Your task to perform on an android device: turn vacation reply on in the gmail app Image 0: 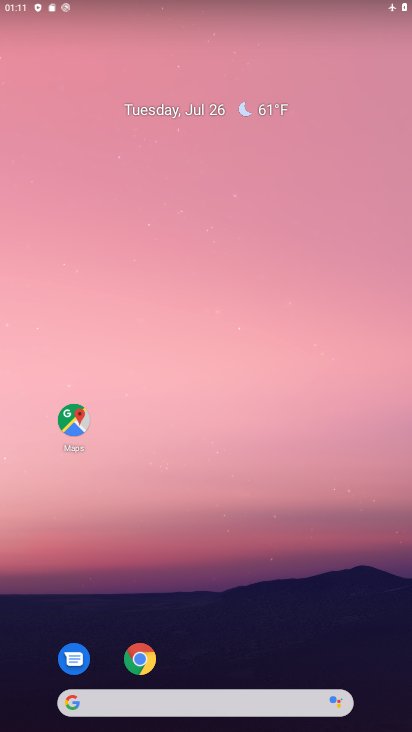
Step 0: drag from (322, 609) to (275, 0)
Your task to perform on an android device: turn vacation reply on in the gmail app Image 1: 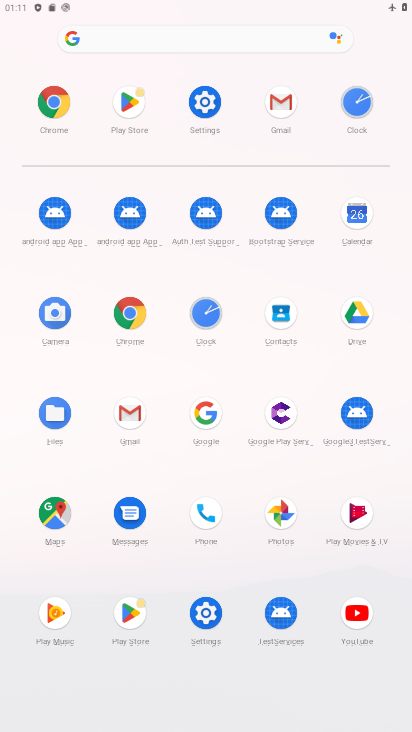
Step 1: click (278, 104)
Your task to perform on an android device: turn vacation reply on in the gmail app Image 2: 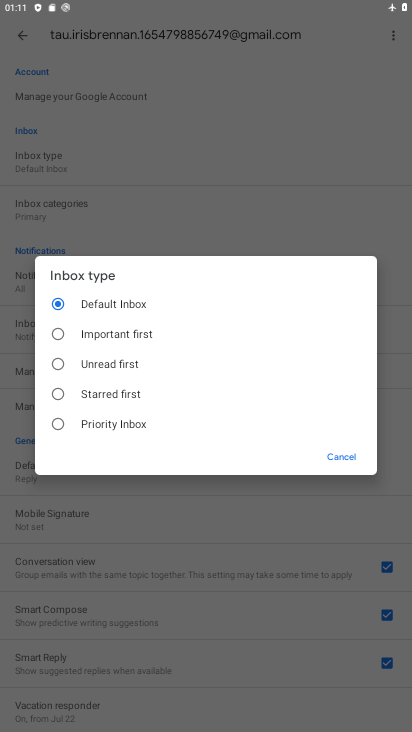
Step 2: click (356, 462)
Your task to perform on an android device: turn vacation reply on in the gmail app Image 3: 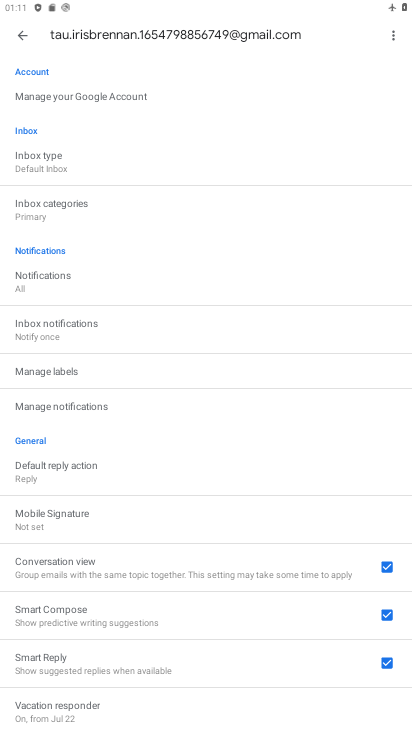
Step 3: drag from (241, 618) to (274, 312)
Your task to perform on an android device: turn vacation reply on in the gmail app Image 4: 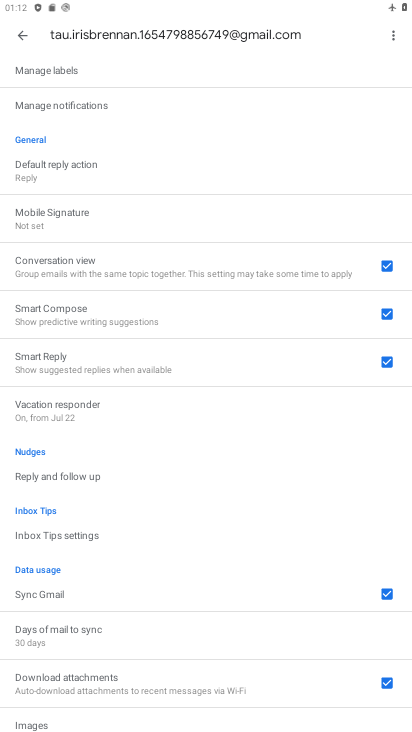
Step 4: click (115, 399)
Your task to perform on an android device: turn vacation reply on in the gmail app Image 5: 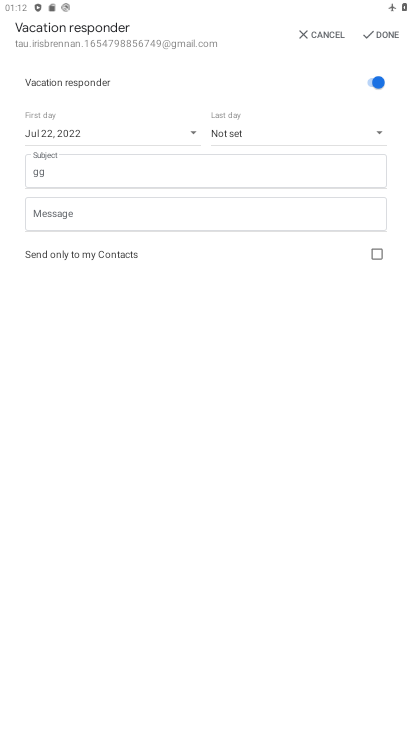
Step 5: task complete